Your task to perform on an android device: change text size in settings app Image 0: 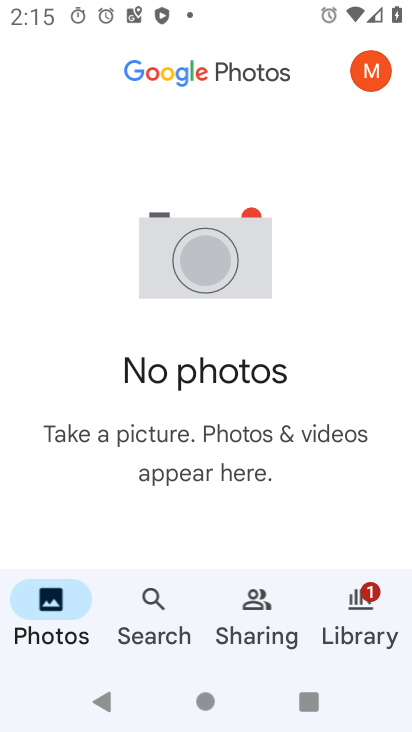
Step 0: press home button
Your task to perform on an android device: change text size in settings app Image 1: 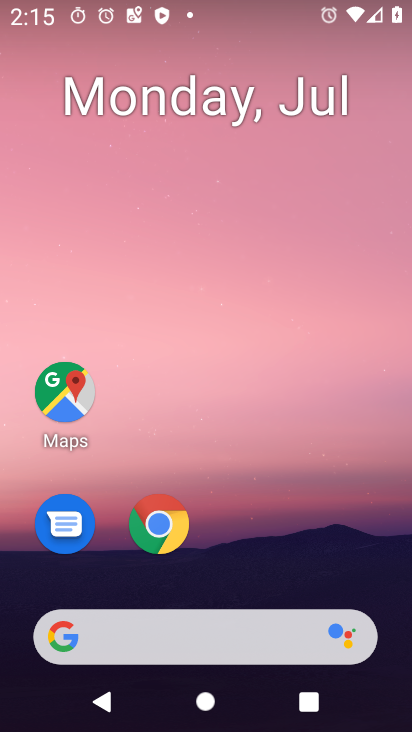
Step 1: drag from (244, 570) to (248, 49)
Your task to perform on an android device: change text size in settings app Image 2: 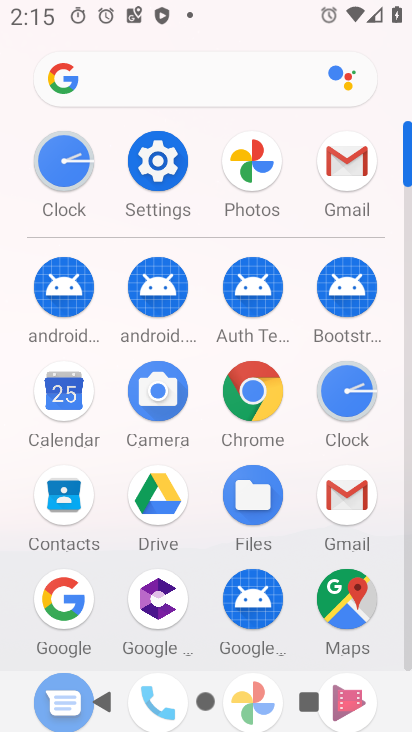
Step 2: click (158, 156)
Your task to perform on an android device: change text size in settings app Image 3: 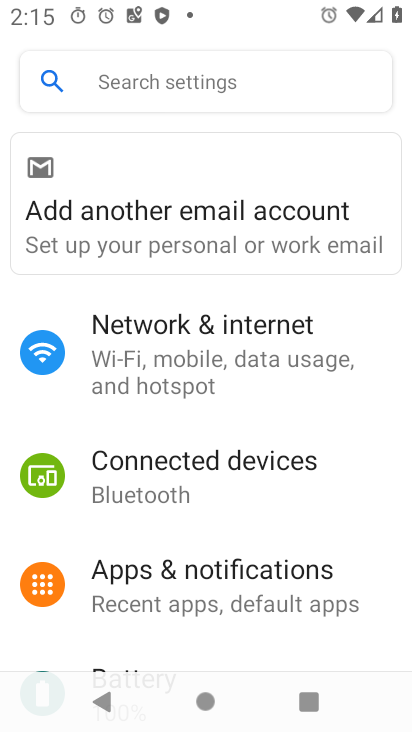
Step 3: drag from (330, 520) to (302, 231)
Your task to perform on an android device: change text size in settings app Image 4: 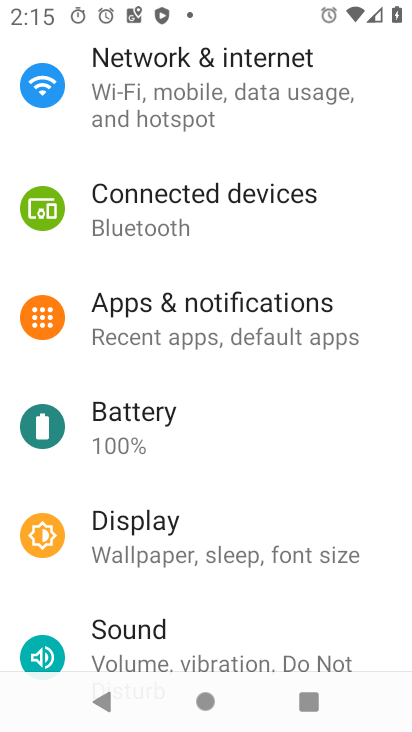
Step 4: click (282, 556)
Your task to perform on an android device: change text size in settings app Image 5: 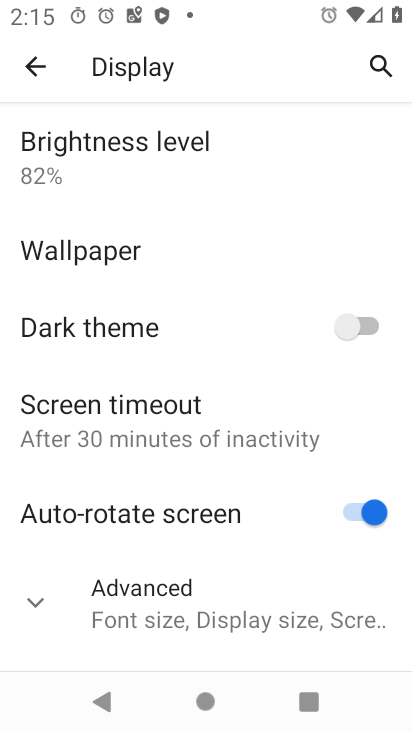
Step 5: drag from (260, 335) to (283, 34)
Your task to perform on an android device: change text size in settings app Image 6: 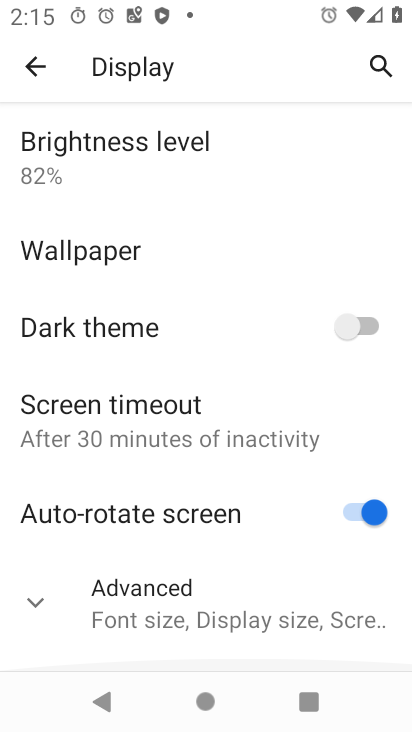
Step 6: click (129, 607)
Your task to perform on an android device: change text size in settings app Image 7: 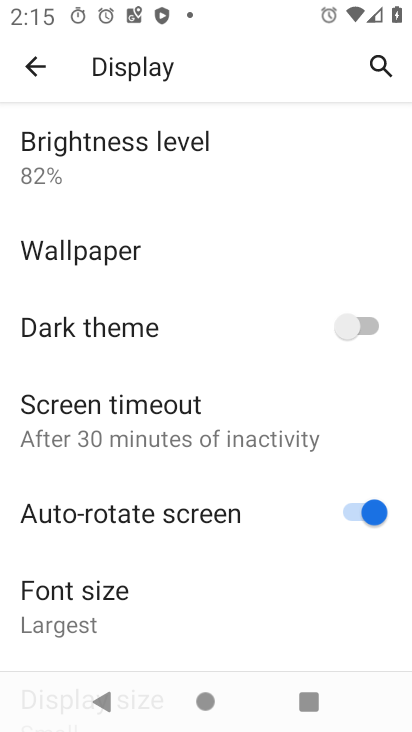
Step 7: click (83, 603)
Your task to perform on an android device: change text size in settings app Image 8: 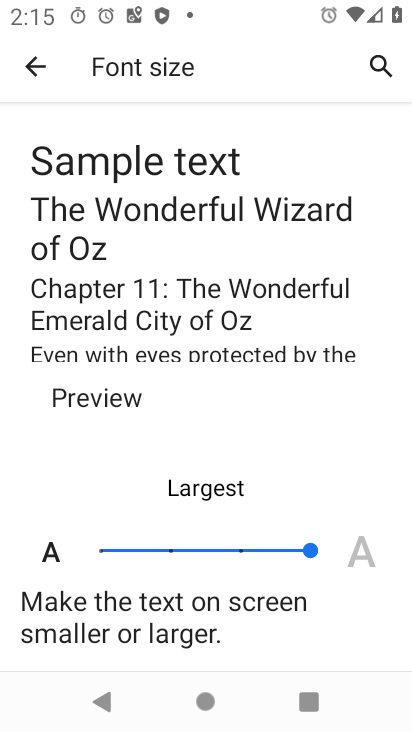
Step 8: click (240, 553)
Your task to perform on an android device: change text size in settings app Image 9: 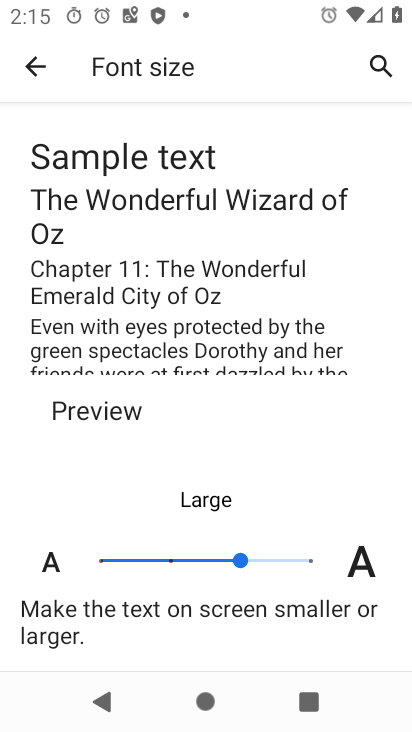
Step 9: click (172, 560)
Your task to perform on an android device: change text size in settings app Image 10: 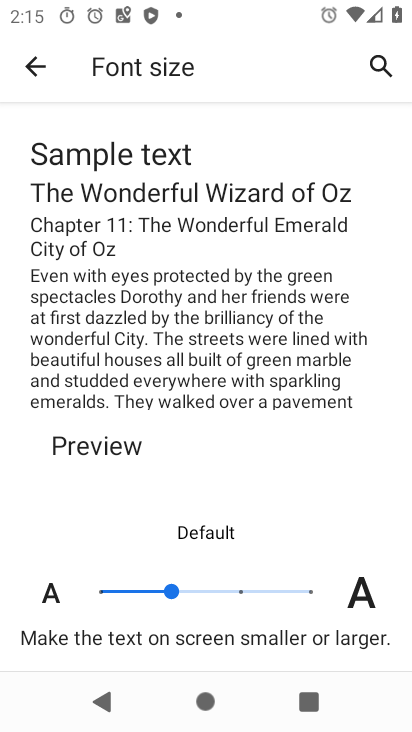
Step 10: click (240, 592)
Your task to perform on an android device: change text size in settings app Image 11: 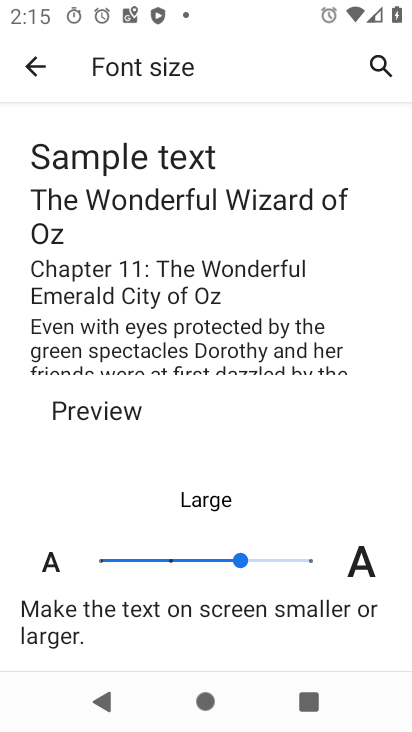
Step 11: click (170, 562)
Your task to perform on an android device: change text size in settings app Image 12: 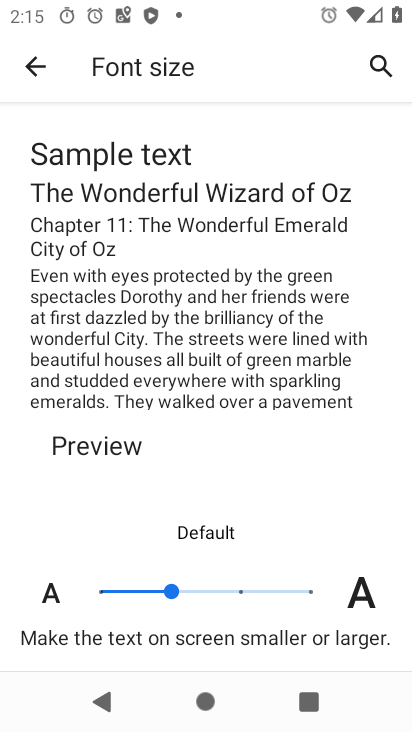
Step 12: task complete